Your task to perform on an android device: Show me productivity apps on the Play Store Image 0: 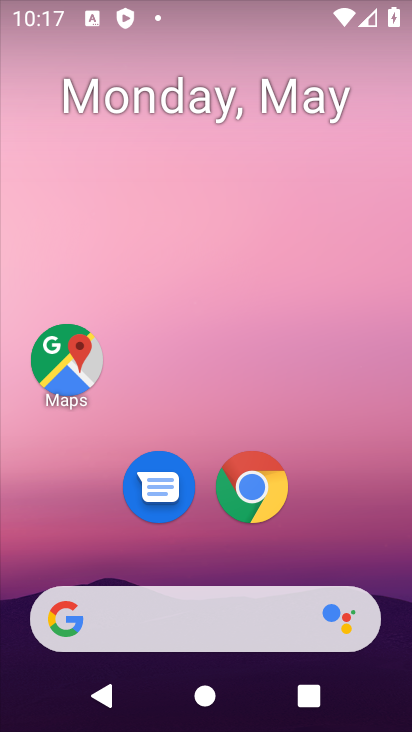
Step 0: drag from (180, 573) to (227, 120)
Your task to perform on an android device: Show me productivity apps on the Play Store Image 1: 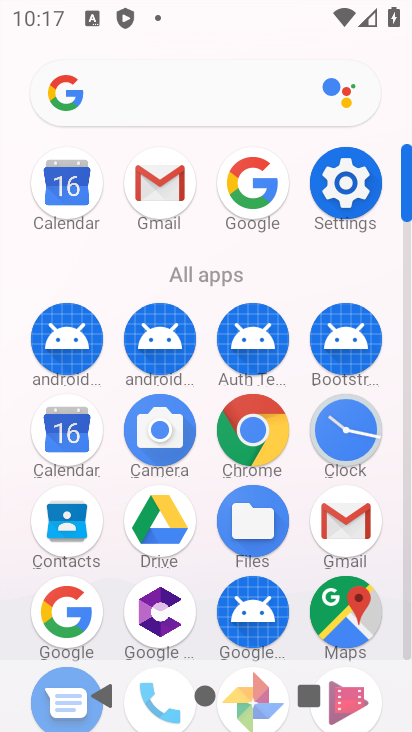
Step 1: drag from (185, 538) to (261, 155)
Your task to perform on an android device: Show me productivity apps on the Play Store Image 2: 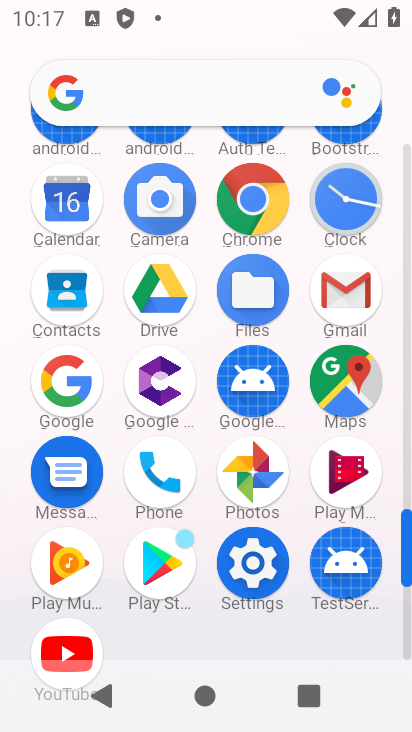
Step 2: click (164, 581)
Your task to perform on an android device: Show me productivity apps on the Play Store Image 3: 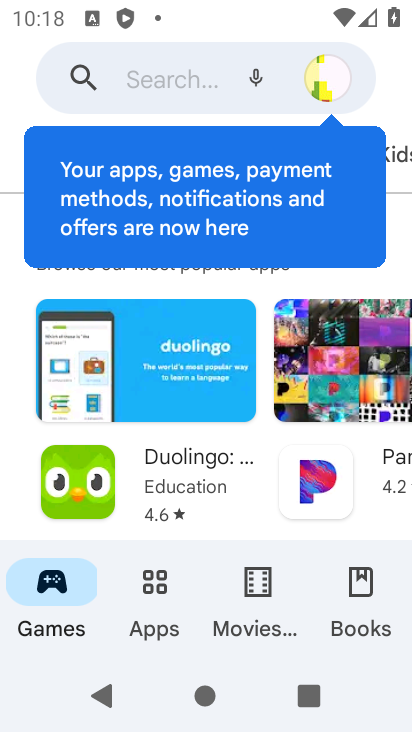
Step 3: click (164, 581)
Your task to perform on an android device: Show me productivity apps on the Play Store Image 4: 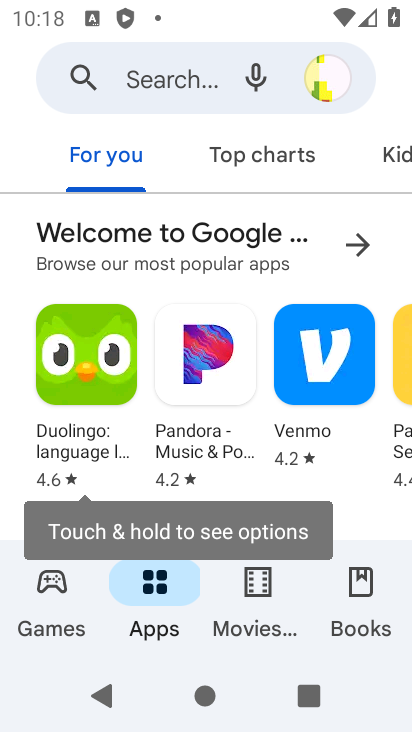
Step 4: drag from (309, 152) to (0, 122)
Your task to perform on an android device: Show me productivity apps on the Play Store Image 5: 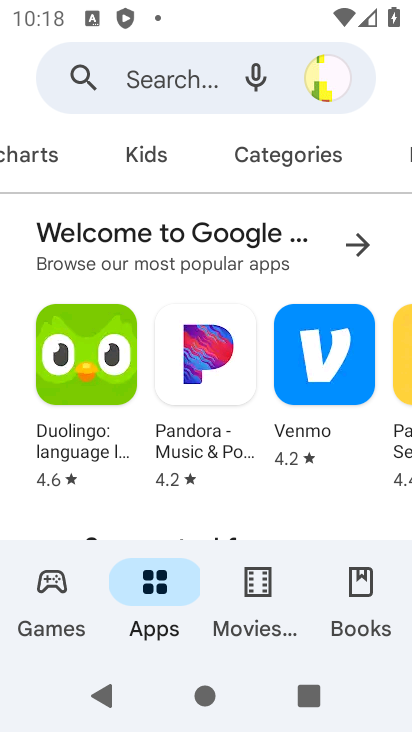
Step 5: click (312, 161)
Your task to perform on an android device: Show me productivity apps on the Play Store Image 6: 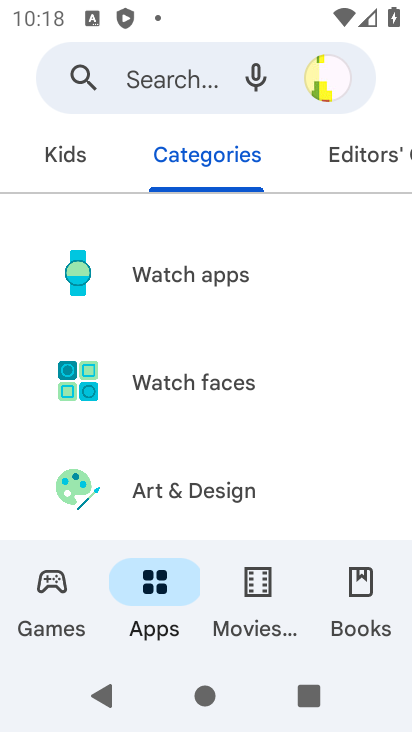
Step 6: drag from (272, 464) to (260, 122)
Your task to perform on an android device: Show me productivity apps on the Play Store Image 7: 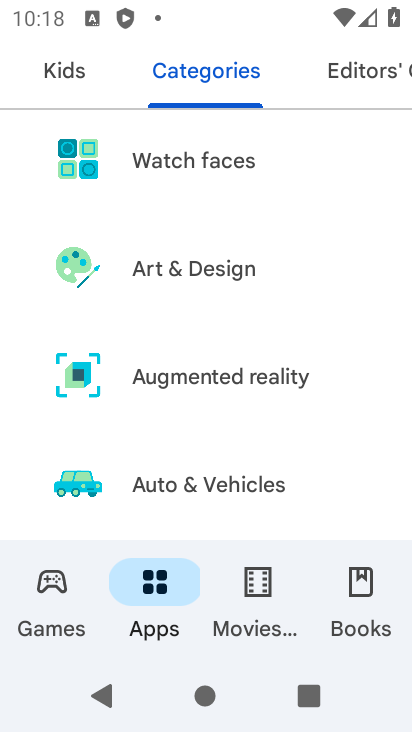
Step 7: drag from (263, 421) to (257, 31)
Your task to perform on an android device: Show me productivity apps on the Play Store Image 8: 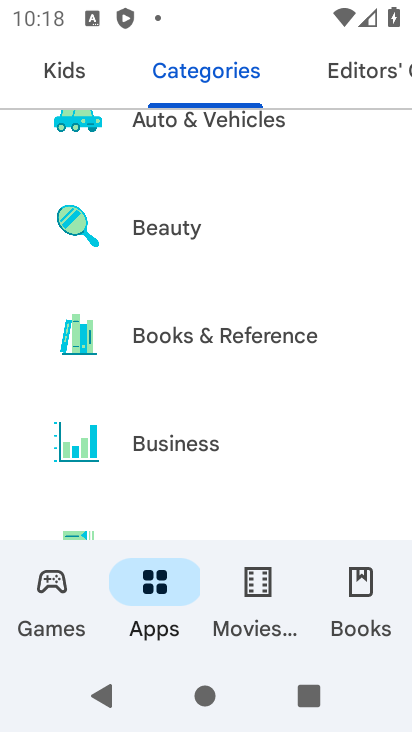
Step 8: drag from (288, 436) to (283, 97)
Your task to perform on an android device: Show me productivity apps on the Play Store Image 9: 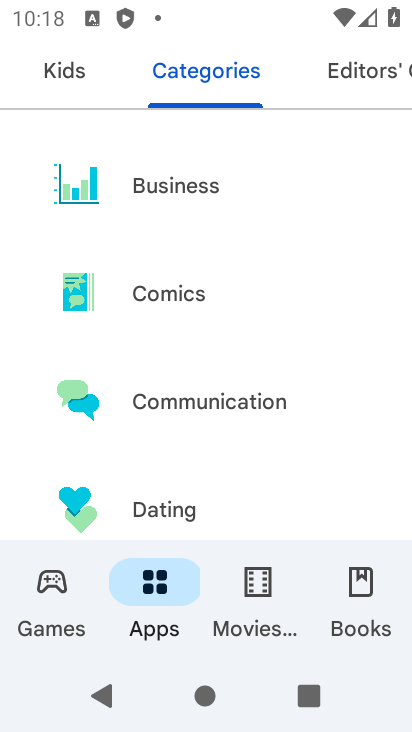
Step 9: drag from (276, 434) to (270, 58)
Your task to perform on an android device: Show me productivity apps on the Play Store Image 10: 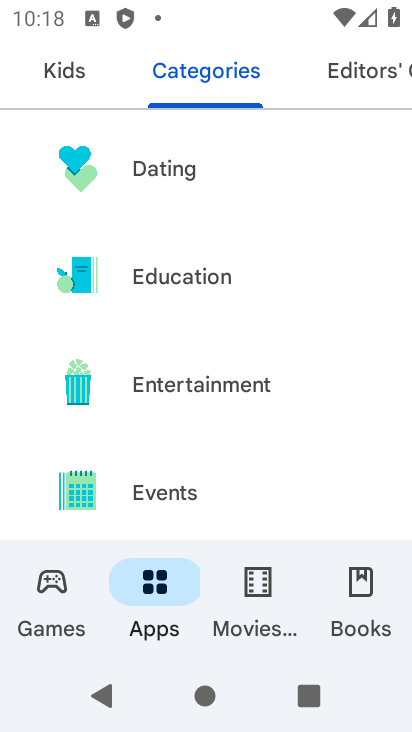
Step 10: drag from (262, 442) to (252, 76)
Your task to perform on an android device: Show me productivity apps on the Play Store Image 11: 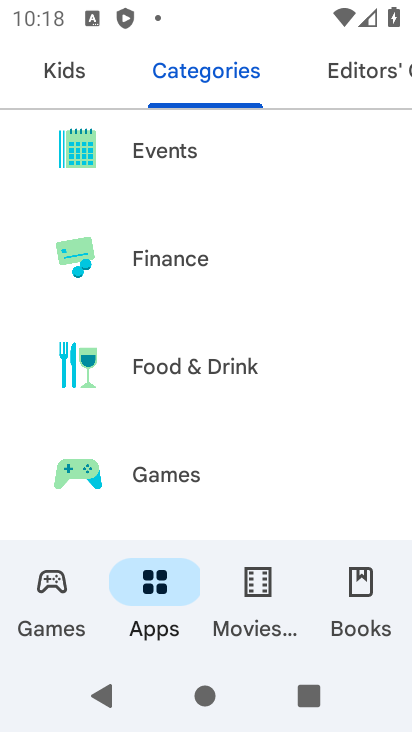
Step 11: drag from (257, 459) to (262, 86)
Your task to perform on an android device: Show me productivity apps on the Play Store Image 12: 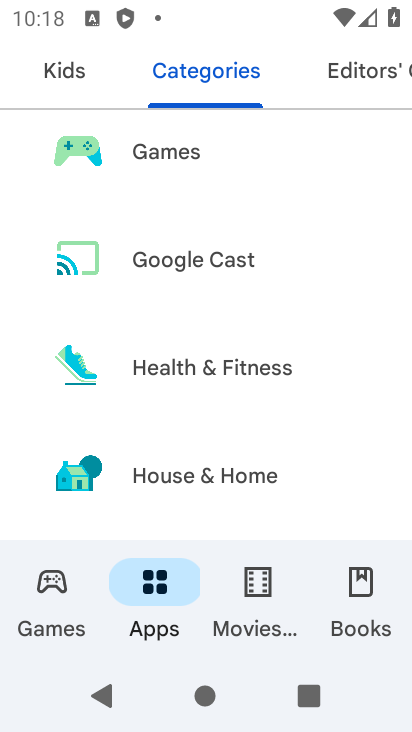
Step 12: drag from (220, 459) to (238, 94)
Your task to perform on an android device: Show me productivity apps on the Play Store Image 13: 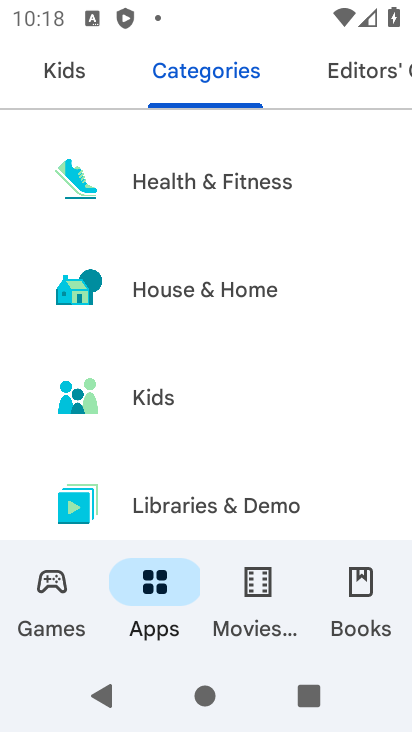
Step 13: drag from (241, 397) to (236, 75)
Your task to perform on an android device: Show me productivity apps on the Play Store Image 14: 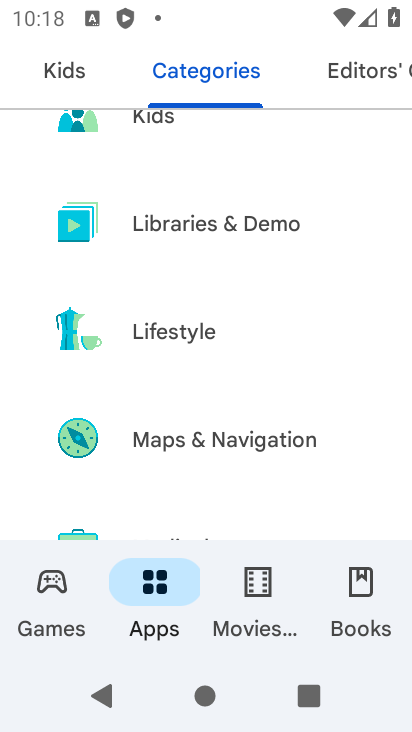
Step 14: drag from (281, 374) to (265, 83)
Your task to perform on an android device: Show me productivity apps on the Play Store Image 15: 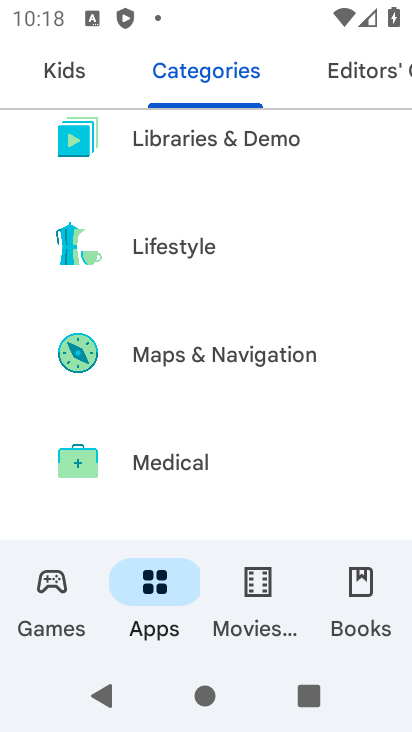
Step 15: drag from (274, 423) to (257, 90)
Your task to perform on an android device: Show me productivity apps on the Play Store Image 16: 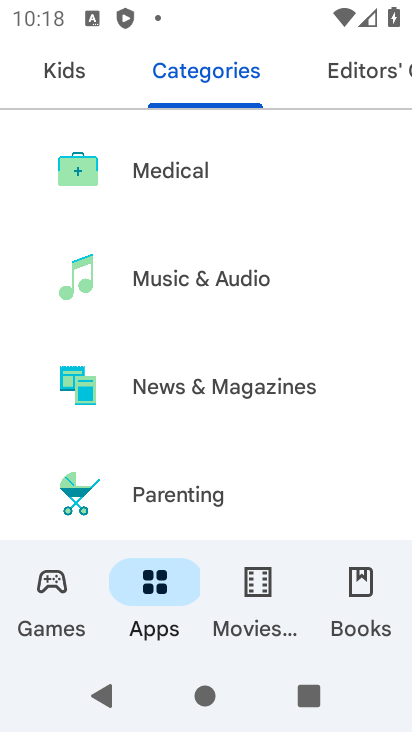
Step 16: drag from (246, 453) to (241, 62)
Your task to perform on an android device: Show me productivity apps on the Play Store Image 17: 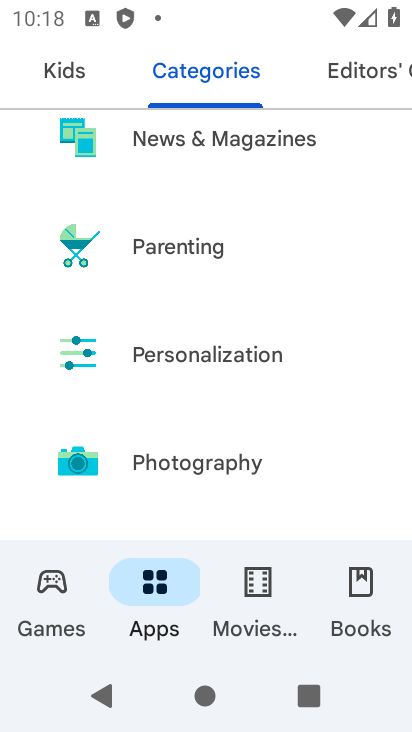
Step 17: drag from (226, 417) to (222, 126)
Your task to perform on an android device: Show me productivity apps on the Play Store Image 18: 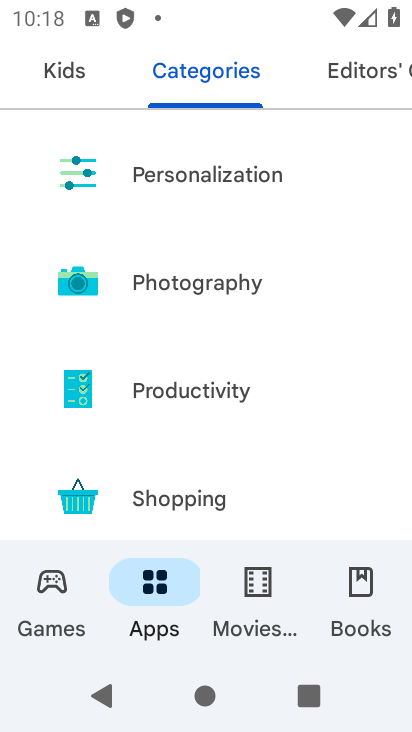
Step 18: click (210, 377)
Your task to perform on an android device: Show me productivity apps on the Play Store Image 19: 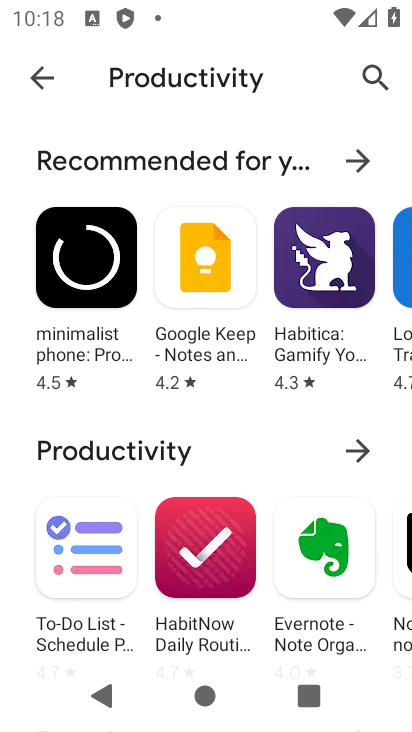
Step 19: task complete